Your task to perform on an android device: What's the weather today? Image 0: 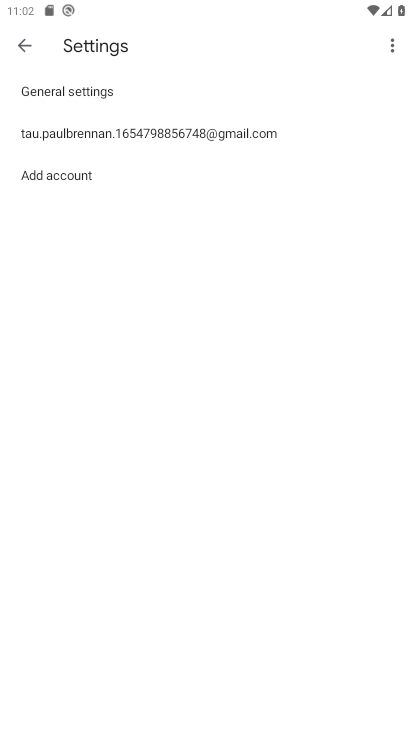
Step 0: press home button
Your task to perform on an android device: What's the weather today? Image 1: 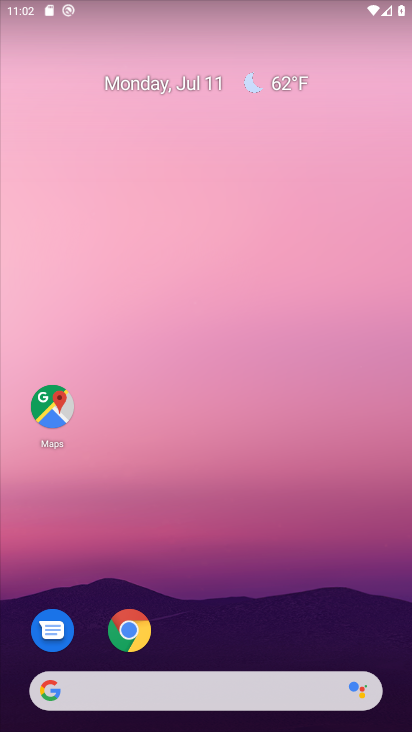
Step 1: click (269, 691)
Your task to perform on an android device: What's the weather today? Image 2: 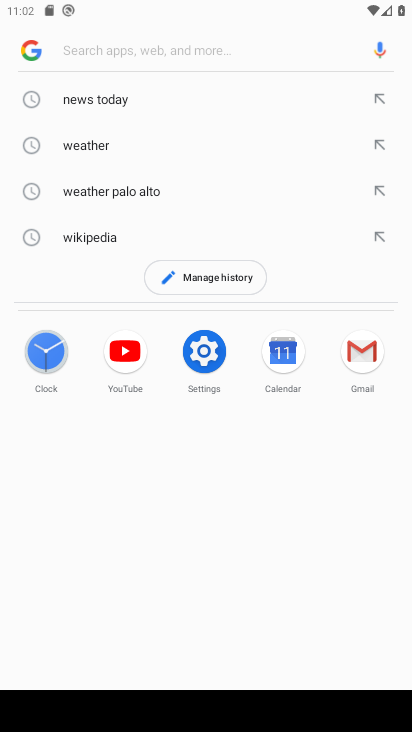
Step 2: click (88, 139)
Your task to perform on an android device: What's the weather today? Image 3: 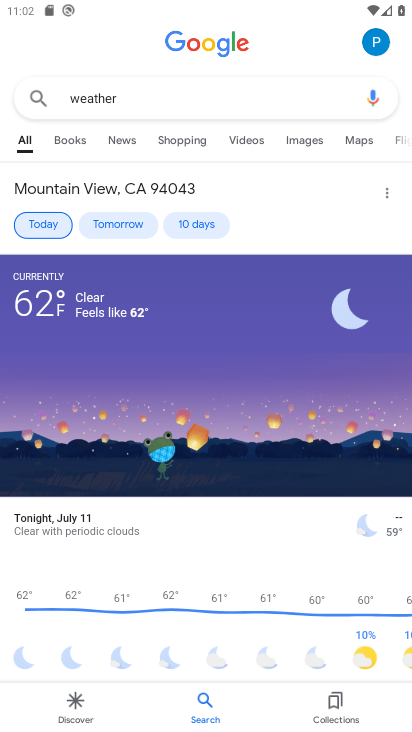
Step 3: click (42, 229)
Your task to perform on an android device: What's the weather today? Image 4: 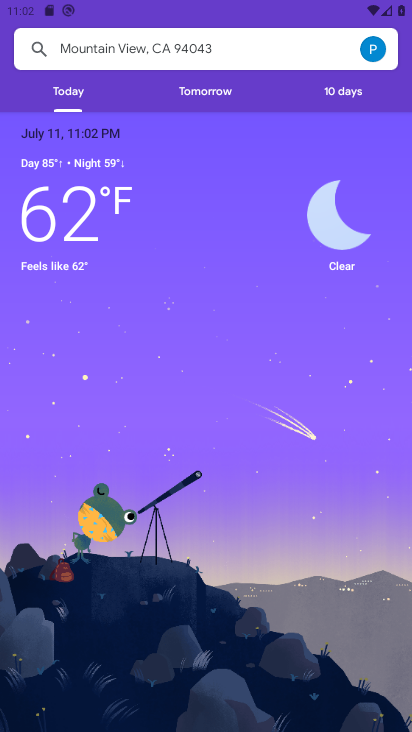
Step 4: task complete